Your task to perform on an android device: Is it going to rain this weekend? Image 0: 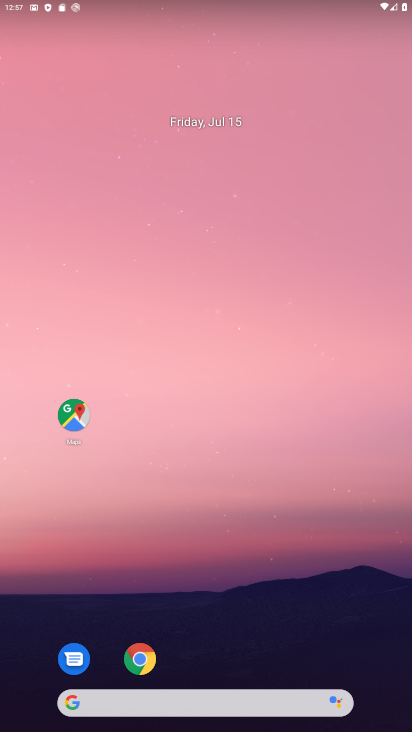
Step 0: click (158, 696)
Your task to perform on an android device: Is it going to rain this weekend? Image 1: 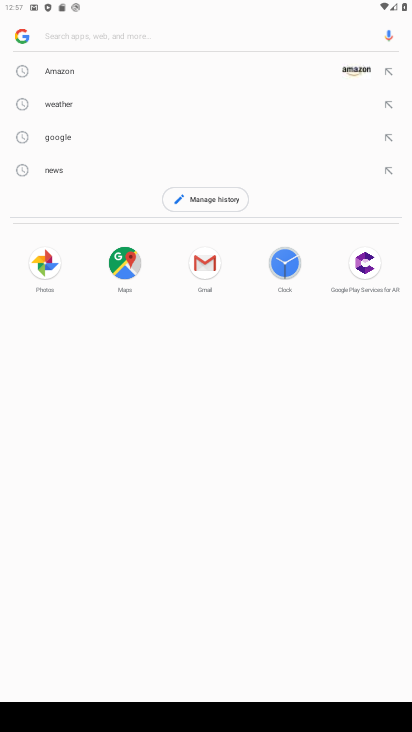
Step 1: click (70, 102)
Your task to perform on an android device: Is it going to rain this weekend? Image 2: 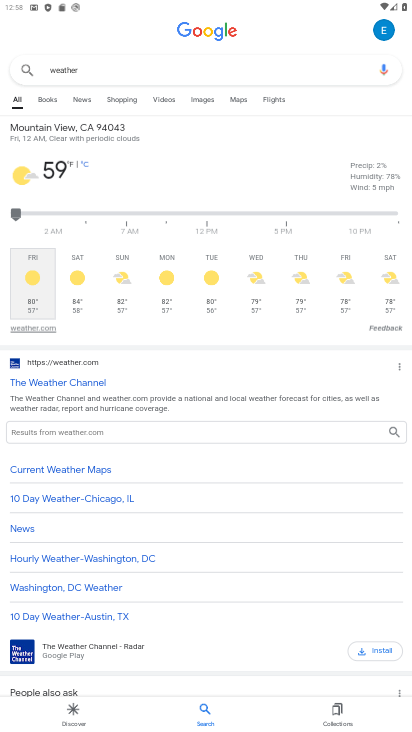
Step 2: task complete